Your task to perform on an android device: turn on priority inbox in the gmail app Image 0: 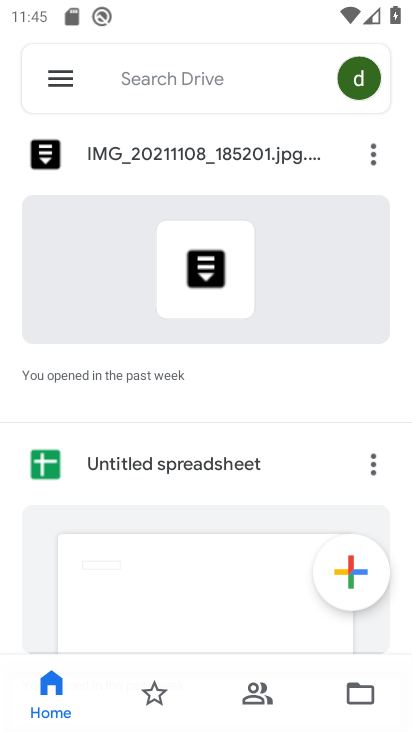
Step 0: press home button
Your task to perform on an android device: turn on priority inbox in the gmail app Image 1: 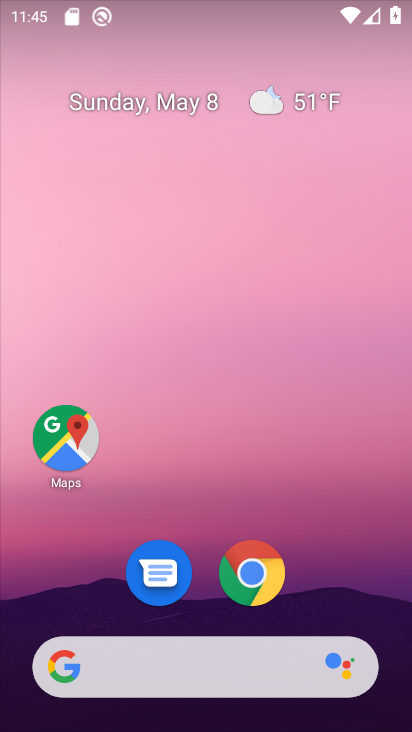
Step 1: drag from (168, 625) to (168, 249)
Your task to perform on an android device: turn on priority inbox in the gmail app Image 2: 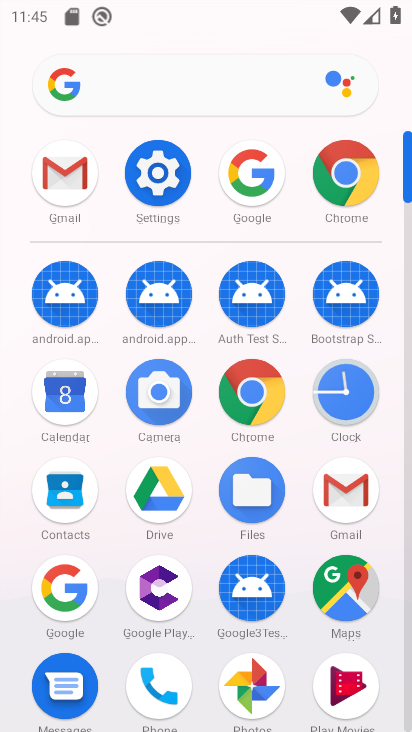
Step 2: click (341, 501)
Your task to perform on an android device: turn on priority inbox in the gmail app Image 3: 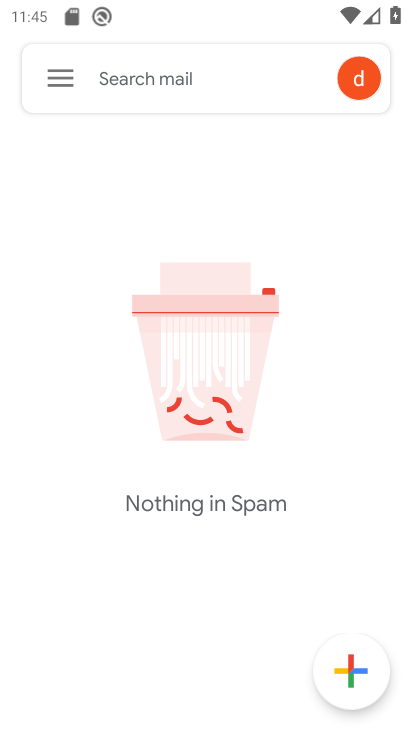
Step 3: click (47, 83)
Your task to perform on an android device: turn on priority inbox in the gmail app Image 4: 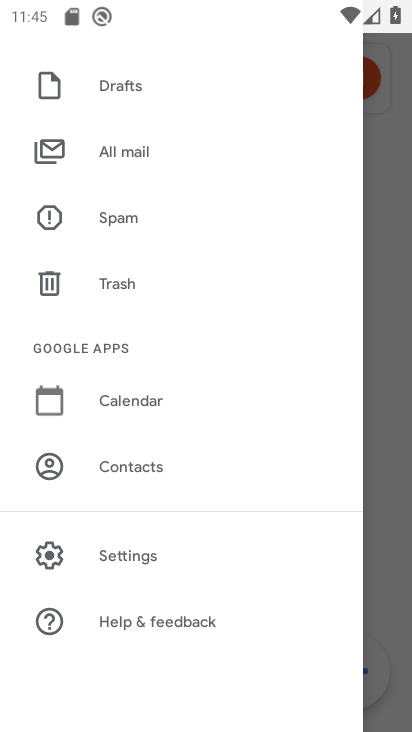
Step 4: click (116, 556)
Your task to perform on an android device: turn on priority inbox in the gmail app Image 5: 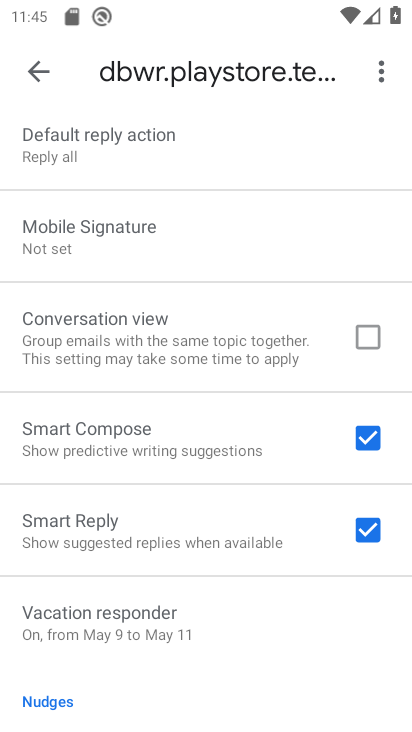
Step 5: drag from (122, 163) to (163, 548)
Your task to perform on an android device: turn on priority inbox in the gmail app Image 6: 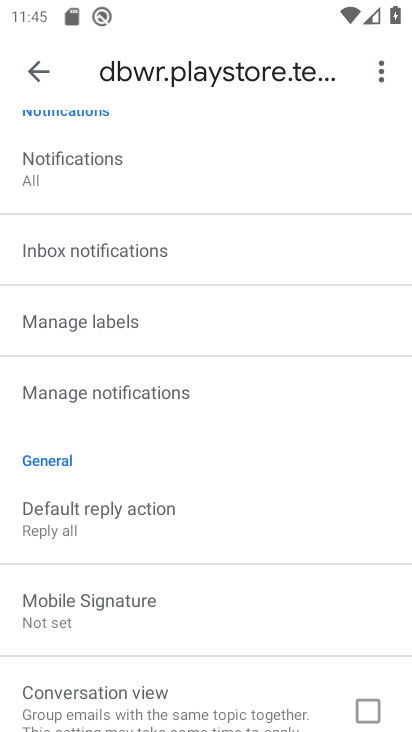
Step 6: drag from (93, 211) to (126, 608)
Your task to perform on an android device: turn on priority inbox in the gmail app Image 7: 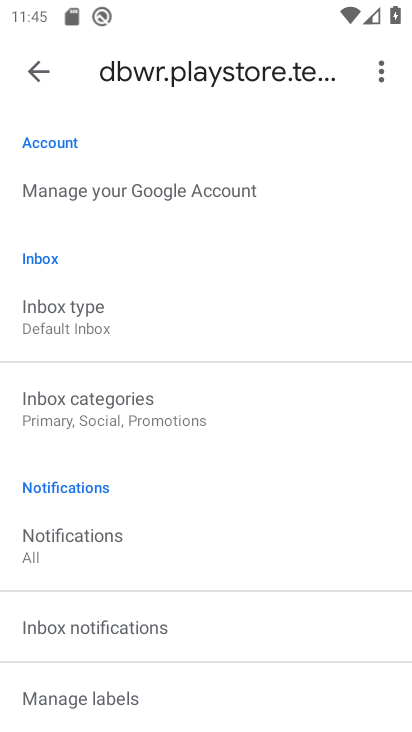
Step 7: click (47, 319)
Your task to perform on an android device: turn on priority inbox in the gmail app Image 8: 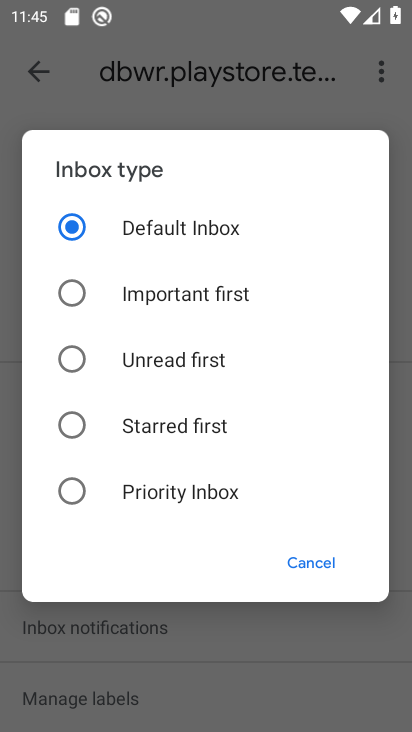
Step 8: click (71, 494)
Your task to perform on an android device: turn on priority inbox in the gmail app Image 9: 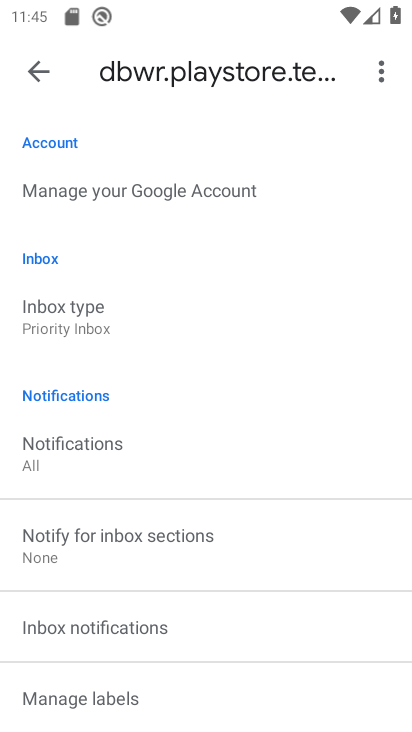
Step 9: task complete